Your task to perform on an android device: Open Google Maps and go to "Timeline" Image 0: 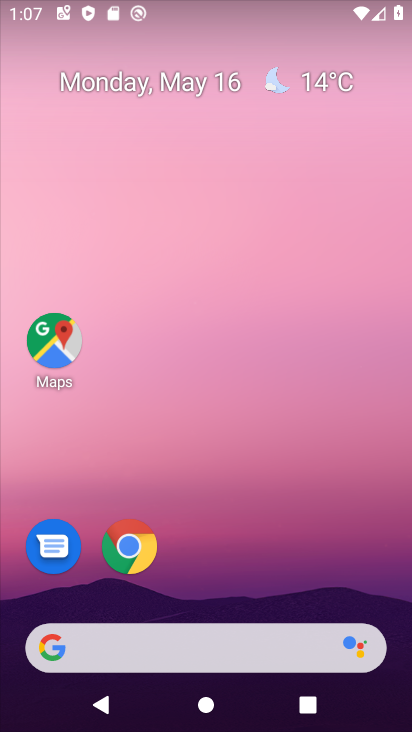
Step 0: drag from (298, 588) to (258, 262)
Your task to perform on an android device: Open Google Maps and go to "Timeline" Image 1: 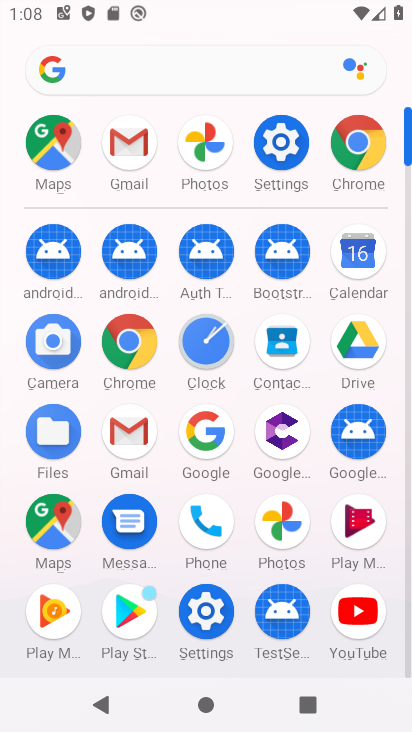
Step 1: click (60, 147)
Your task to perform on an android device: Open Google Maps and go to "Timeline" Image 2: 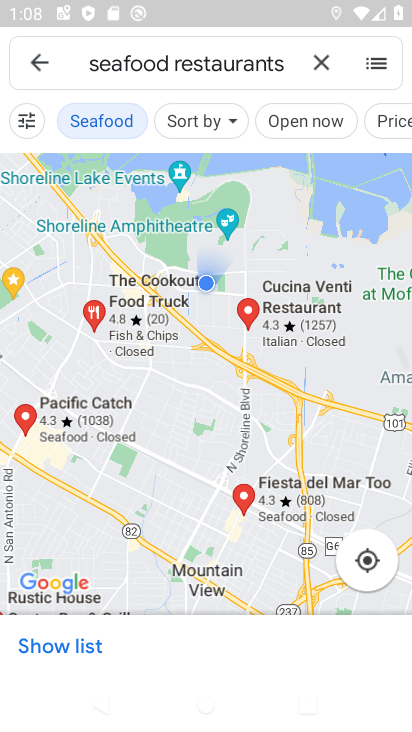
Step 2: click (42, 68)
Your task to perform on an android device: Open Google Maps and go to "Timeline" Image 3: 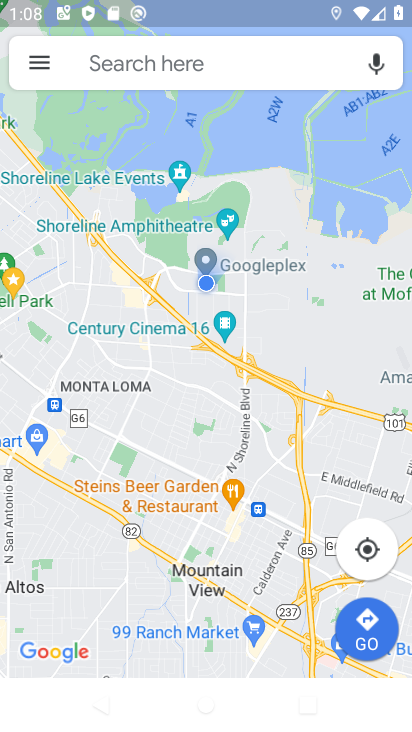
Step 3: click (40, 64)
Your task to perform on an android device: Open Google Maps and go to "Timeline" Image 4: 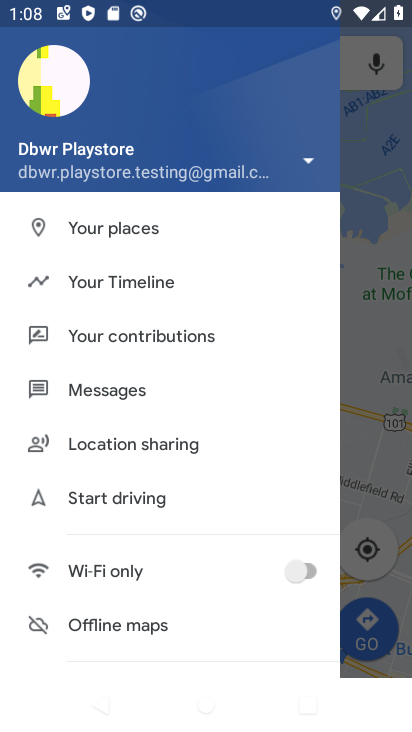
Step 4: click (139, 292)
Your task to perform on an android device: Open Google Maps and go to "Timeline" Image 5: 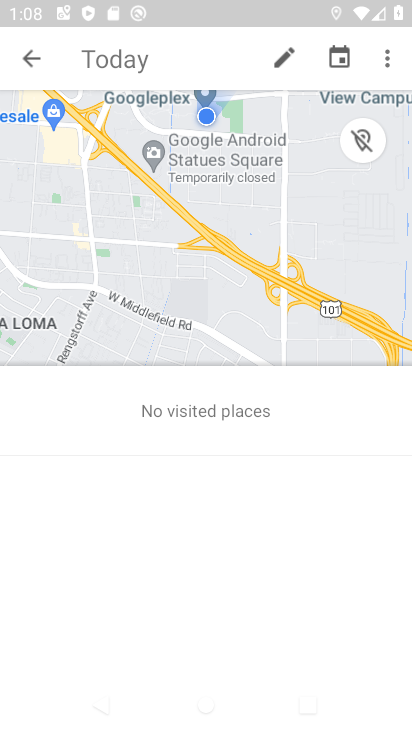
Step 5: task complete